Your task to perform on an android device: open app "PUBG MOBILE" Image 0: 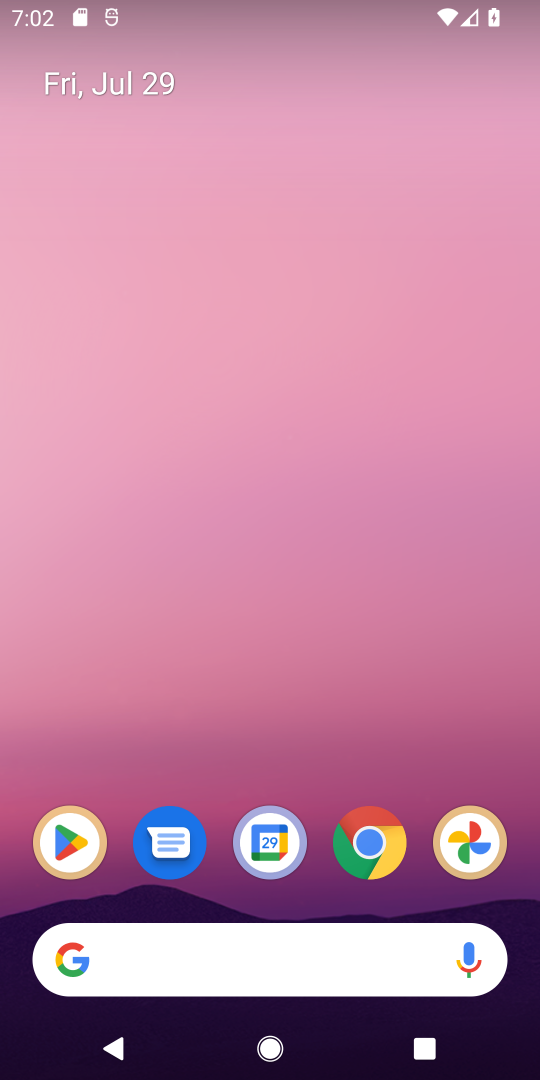
Step 0: drag from (366, 600) to (349, 516)
Your task to perform on an android device: open app "PUBG MOBILE" Image 1: 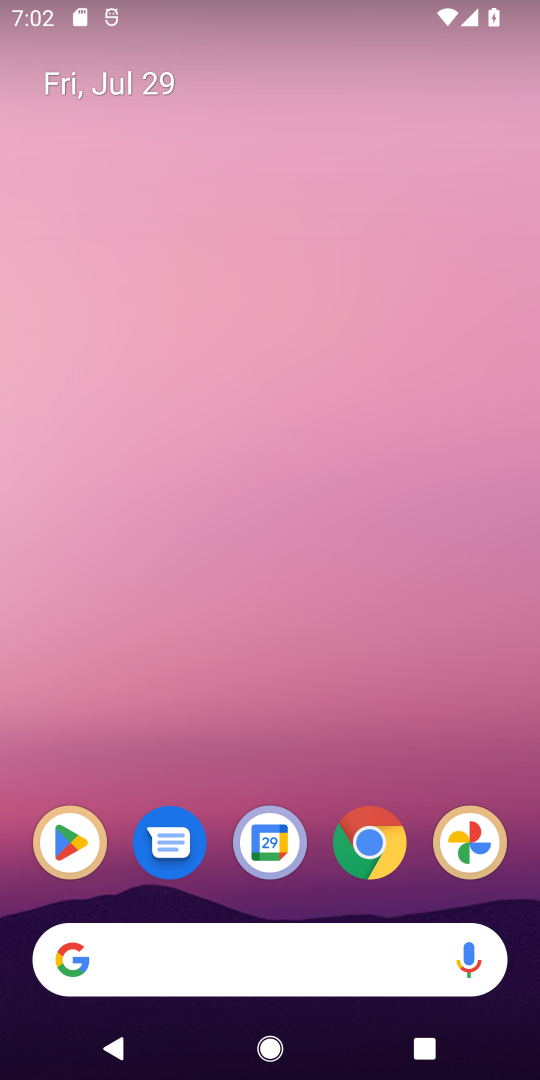
Step 1: drag from (317, 885) to (299, 270)
Your task to perform on an android device: open app "PUBG MOBILE" Image 2: 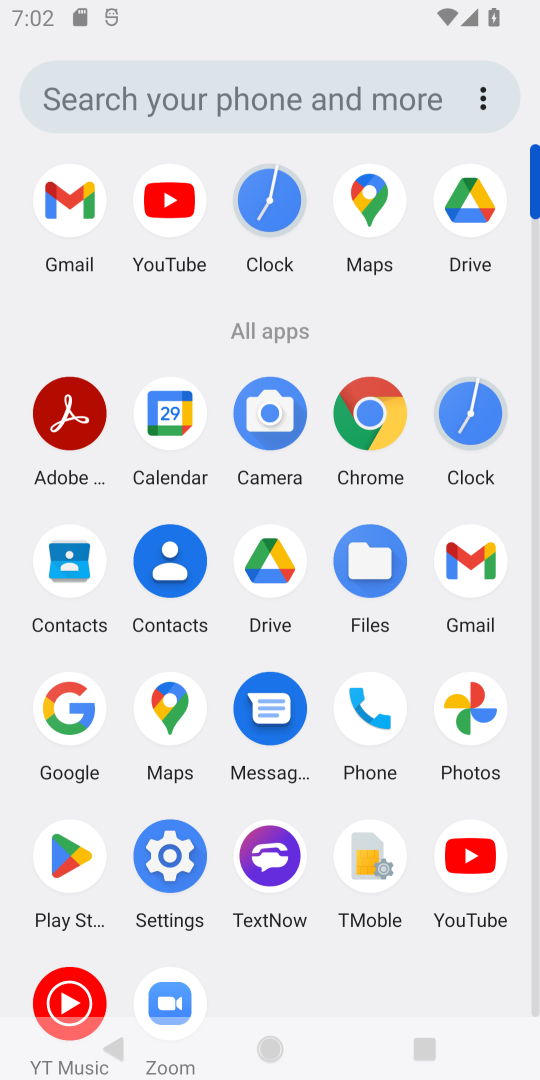
Step 2: drag from (296, 740) to (290, 423)
Your task to perform on an android device: open app "PUBG MOBILE" Image 3: 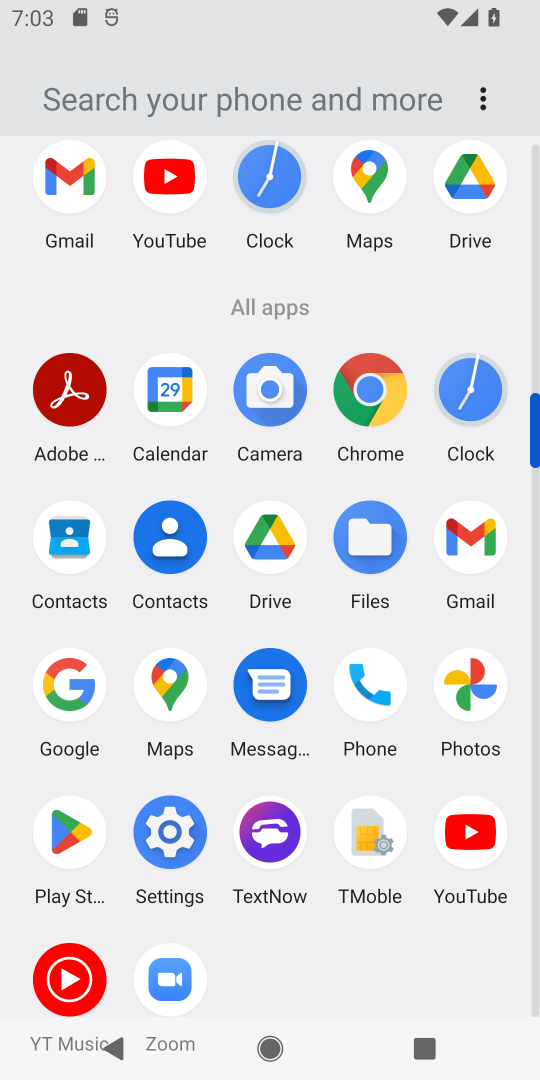
Step 3: click (66, 848)
Your task to perform on an android device: open app "PUBG MOBILE" Image 4: 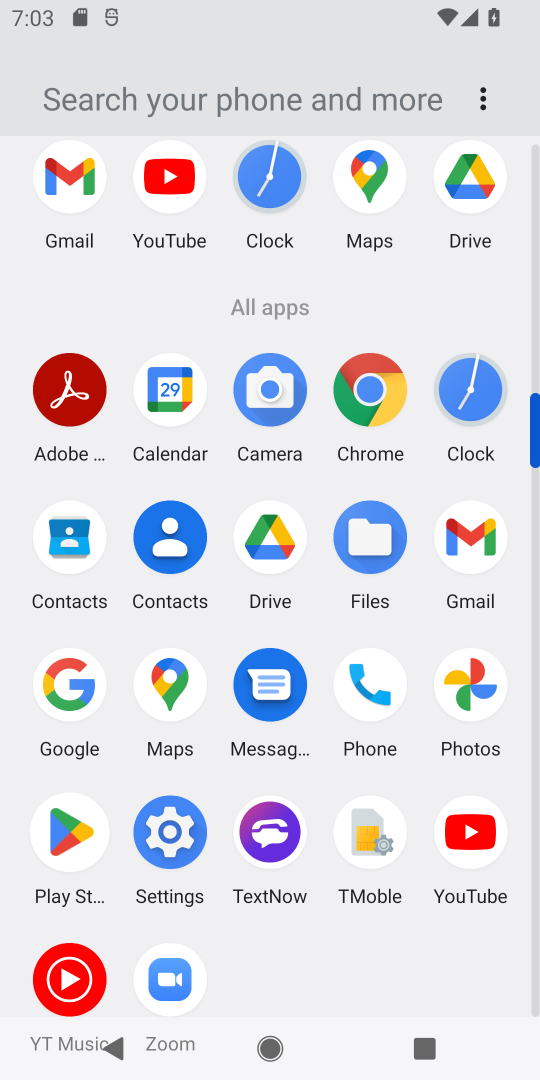
Step 4: click (74, 845)
Your task to perform on an android device: open app "PUBG MOBILE" Image 5: 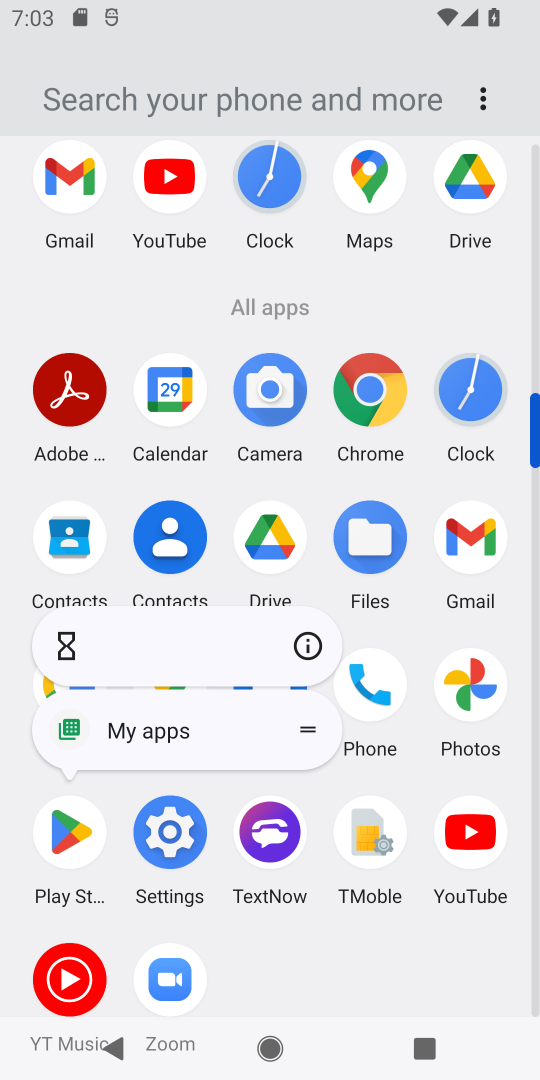
Step 5: click (75, 833)
Your task to perform on an android device: open app "PUBG MOBILE" Image 6: 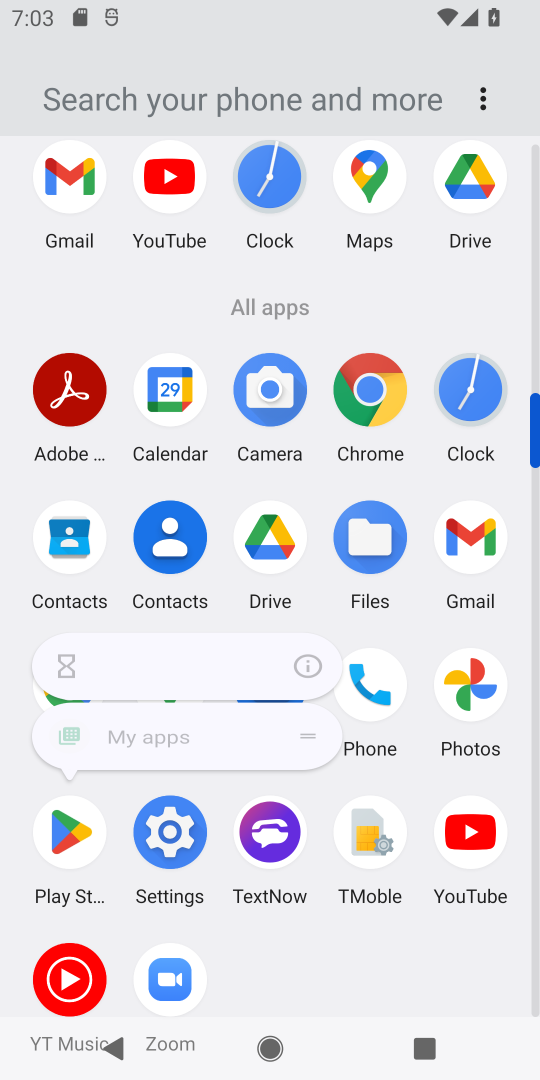
Step 6: click (89, 828)
Your task to perform on an android device: open app "PUBG MOBILE" Image 7: 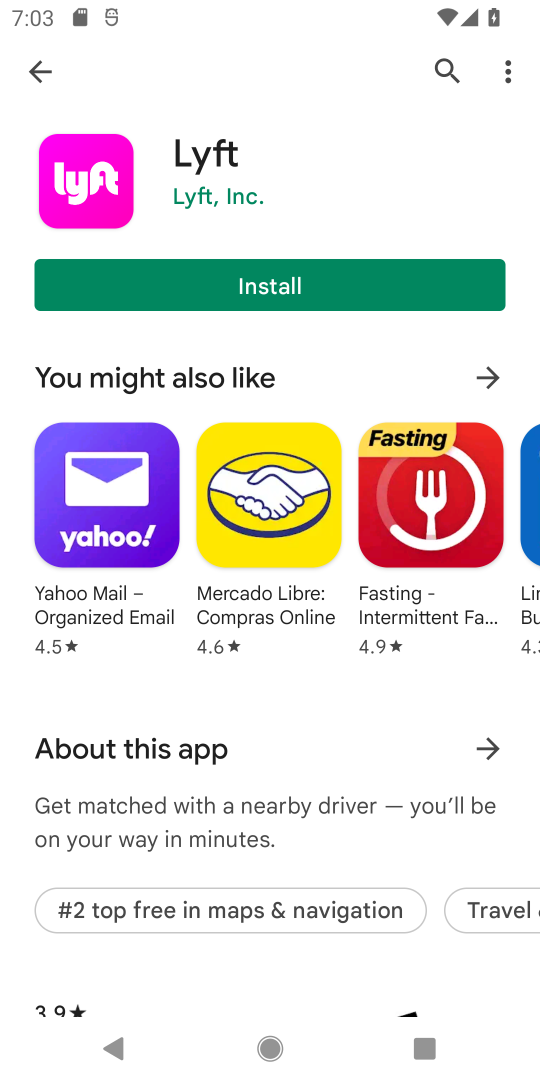
Step 7: click (43, 78)
Your task to perform on an android device: open app "PUBG MOBILE" Image 8: 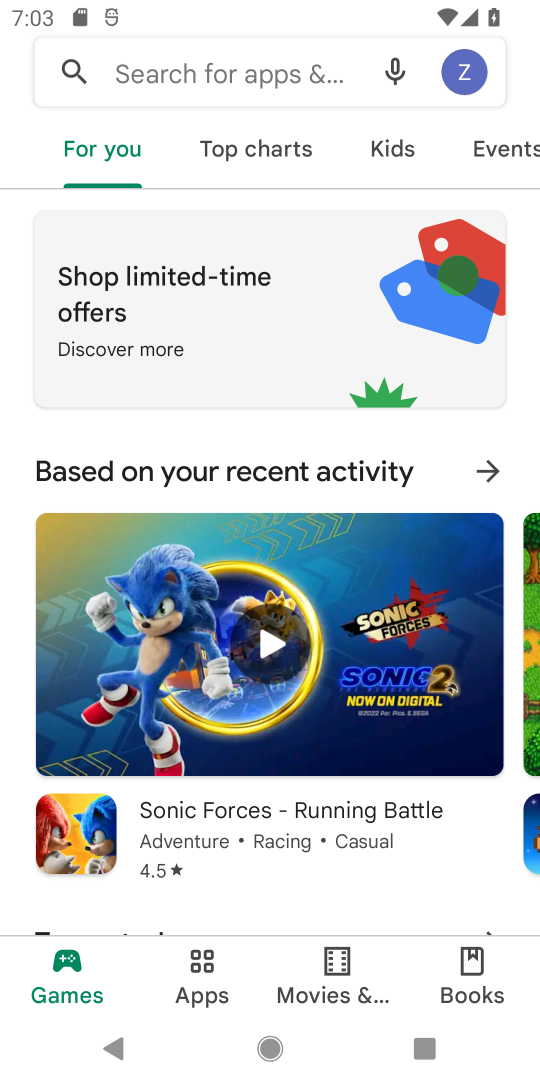
Step 8: click (171, 40)
Your task to perform on an android device: open app "PUBG MOBILE" Image 9: 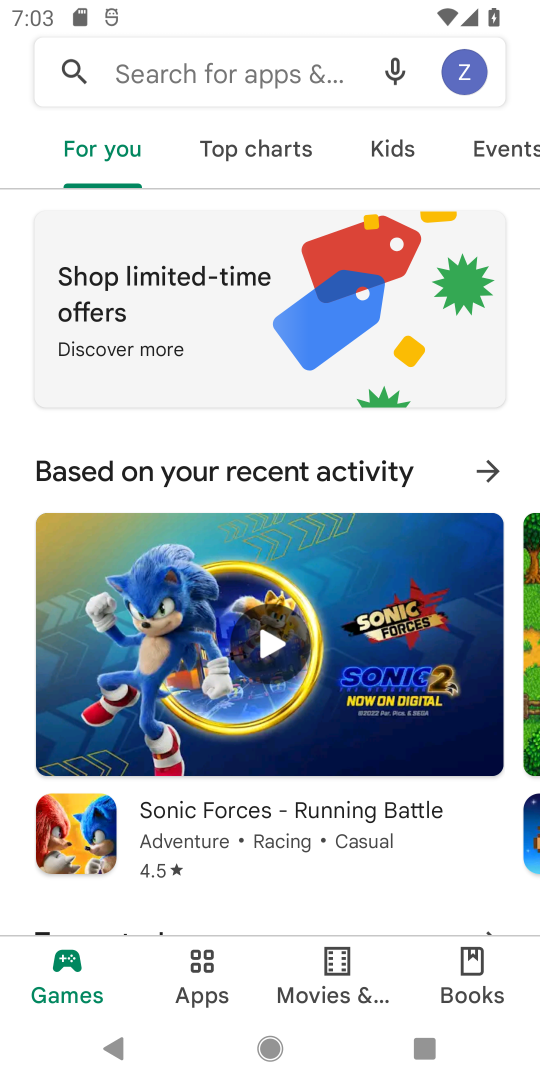
Step 9: click (166, 69)
Your task to perform on an android device: open app "PUBG MOBILE" Image 10: 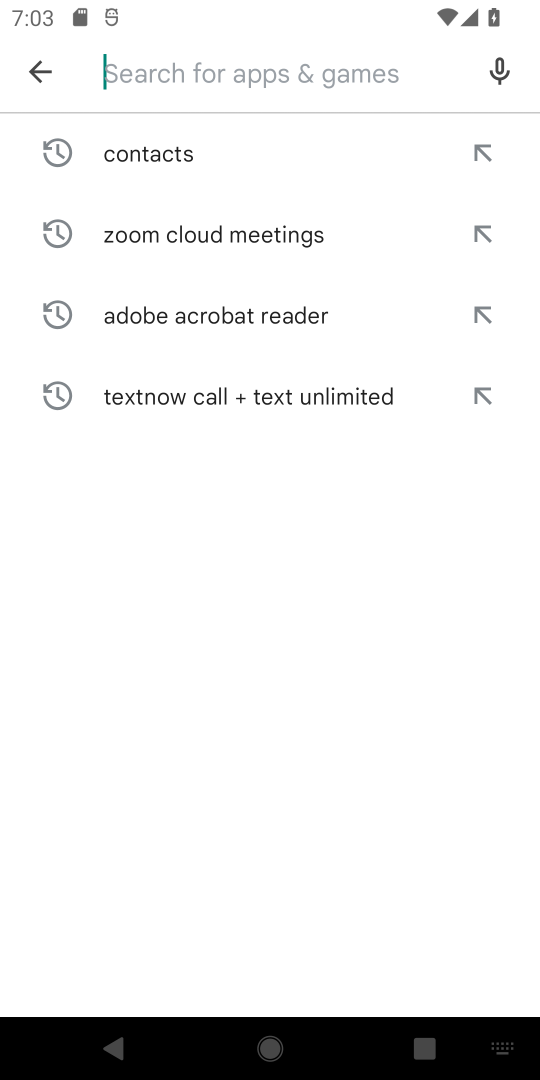
Step 10: type "pubg mobile"
Your task to perform on an android device: open app "PUBG MOBILE" Image 11: 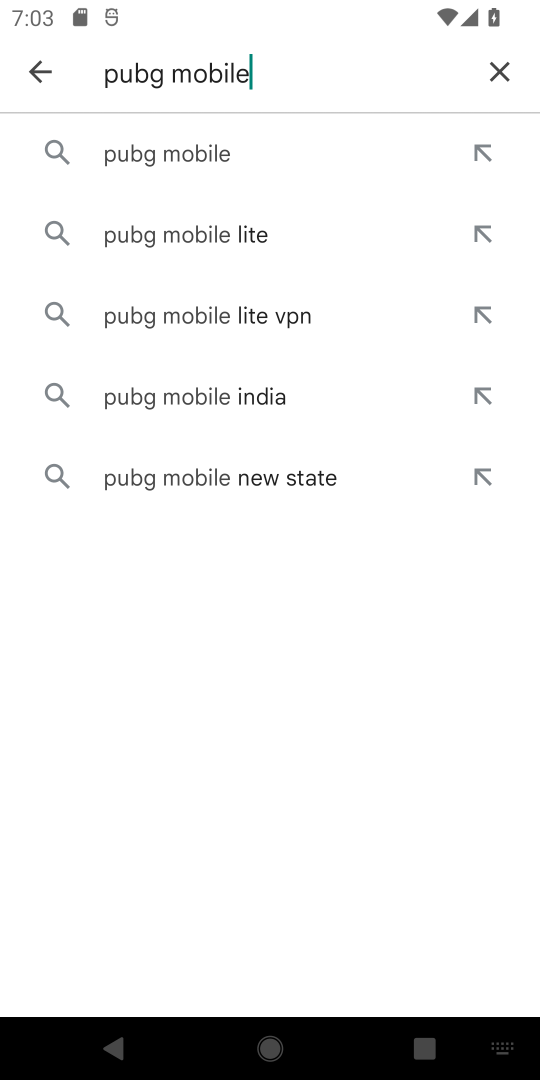
Step 11: click (168, 162)
Your task to perform on an android device: open app "PUBG MOBILE" Image 12: 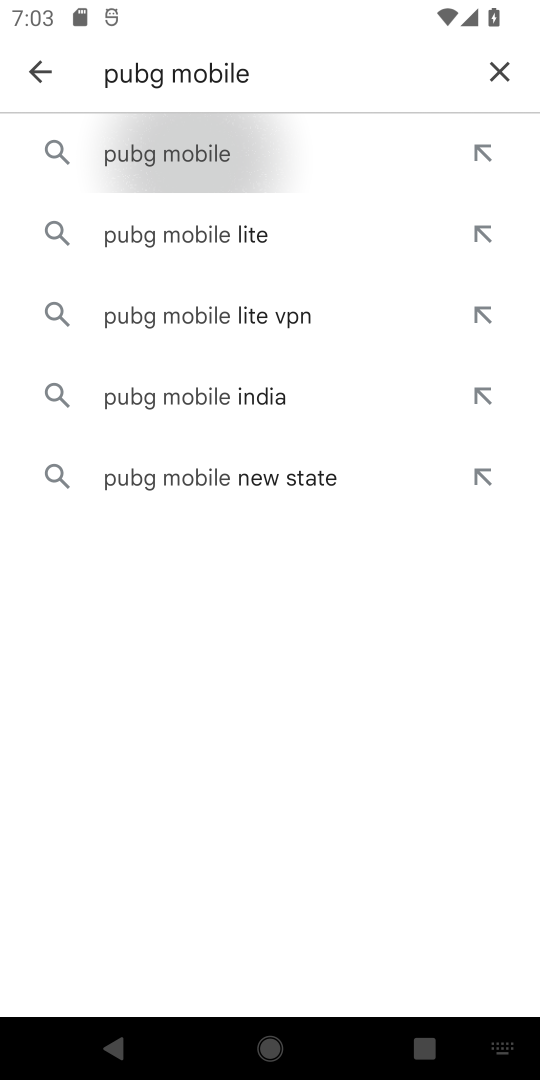
Step 12: click (168, 162)
Your task to perform on an android device: open app "PUBG MOBILE" Image 13: 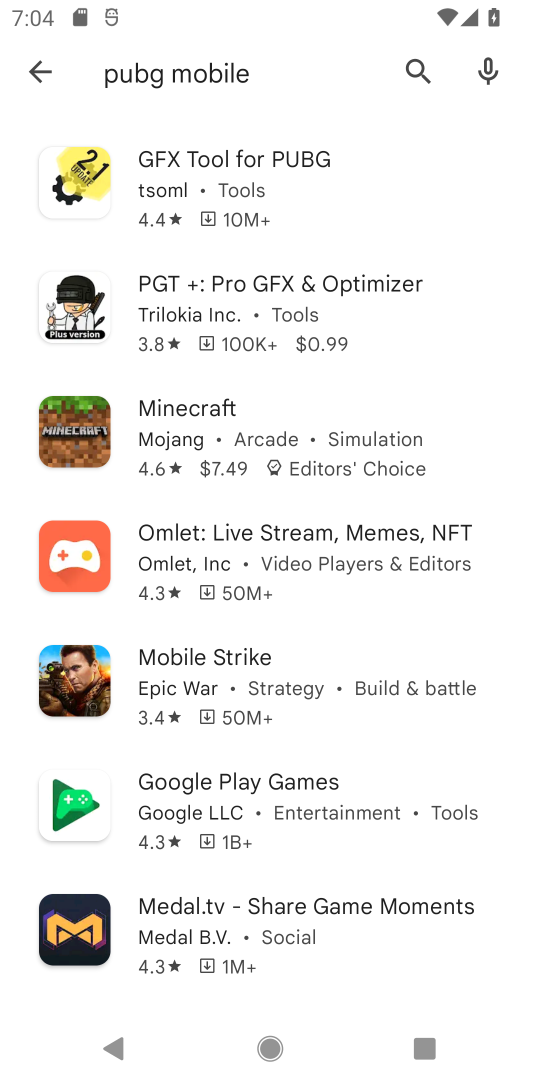
Step 13: drag from (314, 739) to (244, 285)
Your task to perform on an android device: open app "PUBG MOBILE" Image 14: 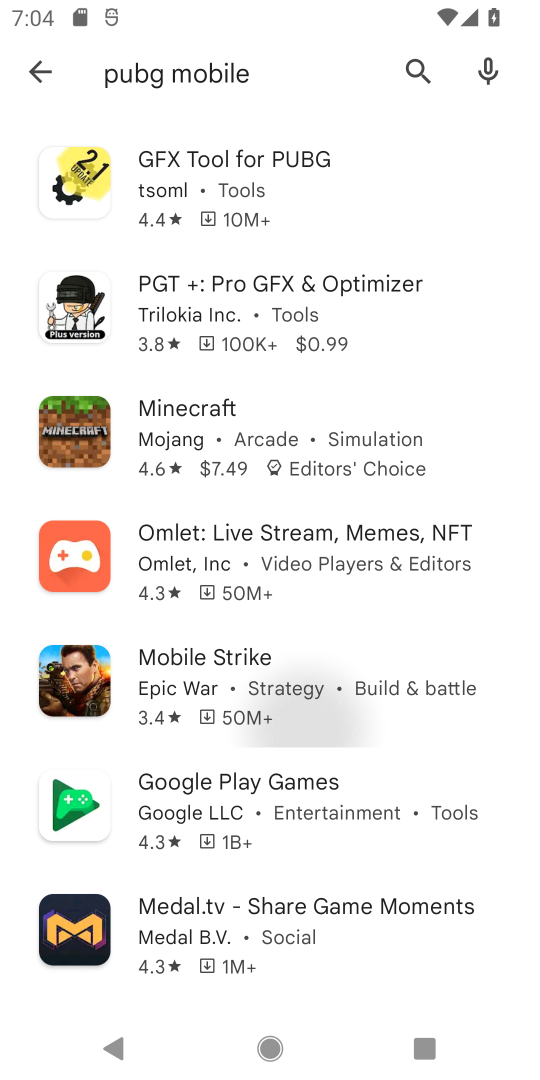
Step 14: click (254, 428)
Your task to perform on an android device: open app "PUBG MOBILE" Image 15: 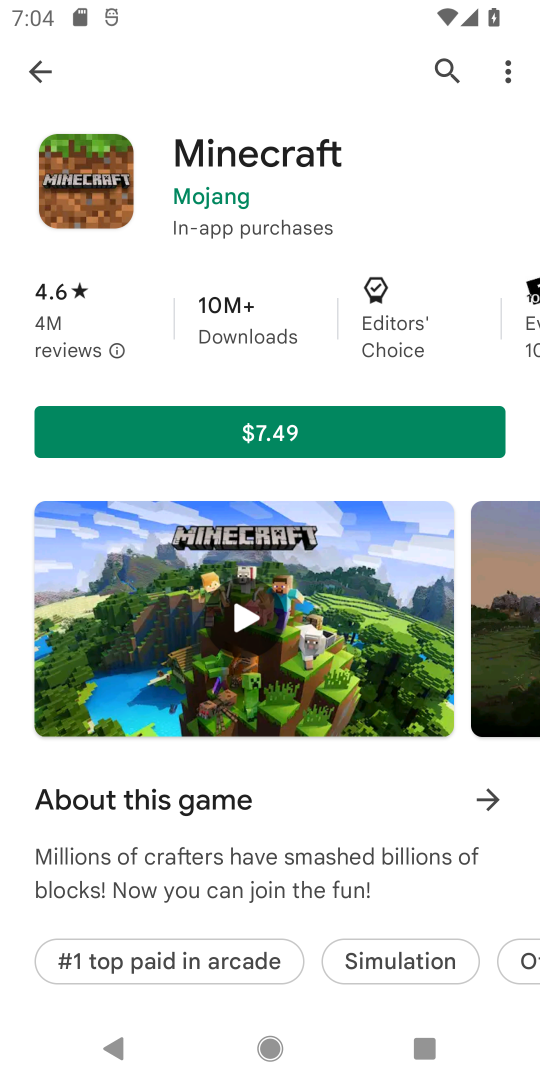
Step 15: task complete